Your task to perform on an android device: Open Google Chrome and click the shortcut for Amazon.com Image 0: 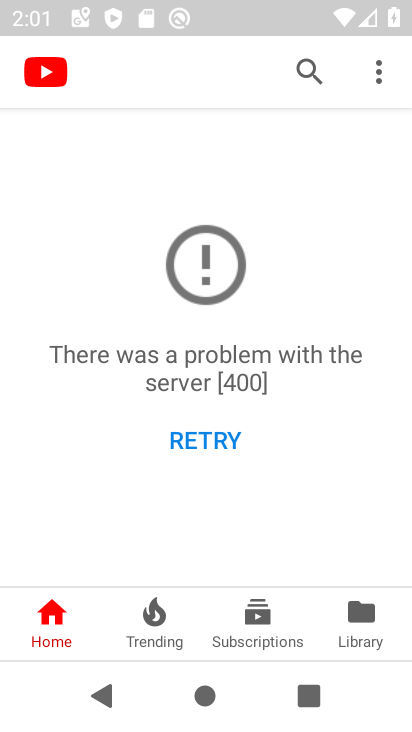
Step 0: press home button
Your task to perform on an android device: Open Google Chrome and click the shortcut for Amazon.com Image 1: 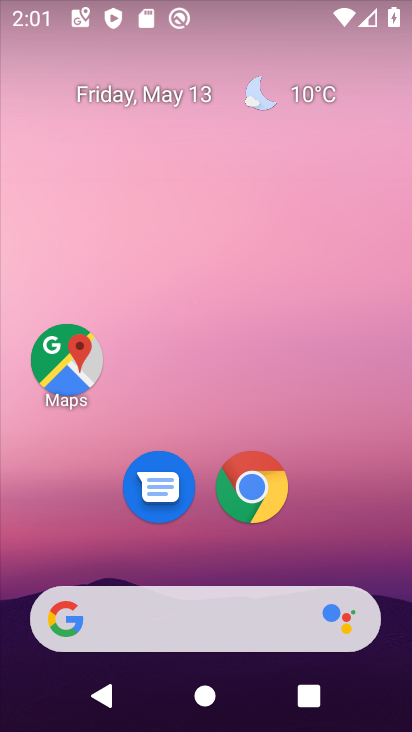
Step 1: click (253, 488)
Your task to perform on an android device: Open Google Chrome and click the shortcut for Amazon.com Image 2: 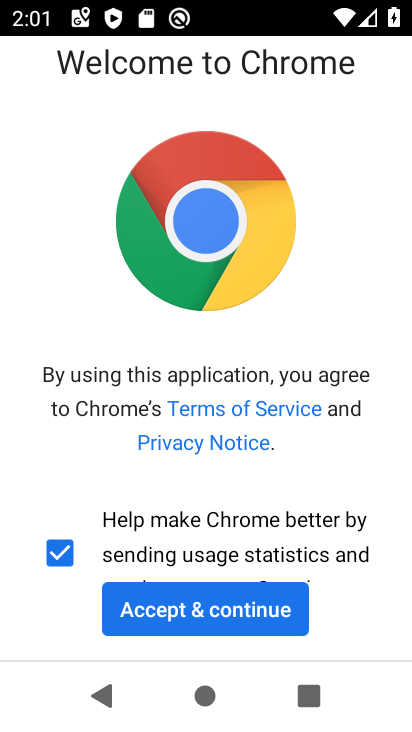
Step 2: click (203, 612)
Your task to perform on an android device: Open Google Chrome and click the shortcut for Amazon.com Image 3: 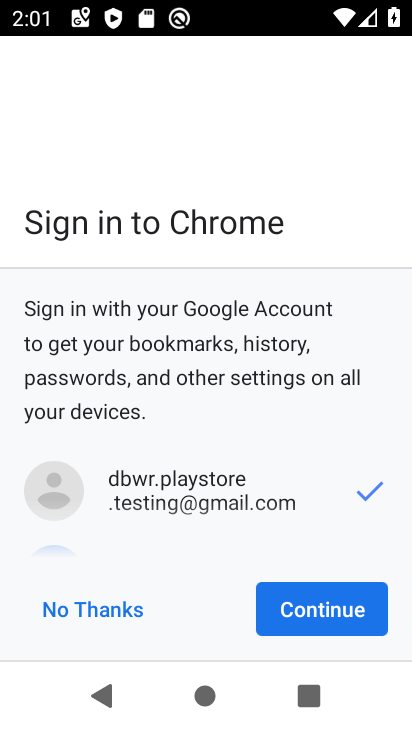
Step 3: click (328, 603)
Your task to perform on an android device: Open Google Chrome and click the shortcut for Amazon.com Image 4: 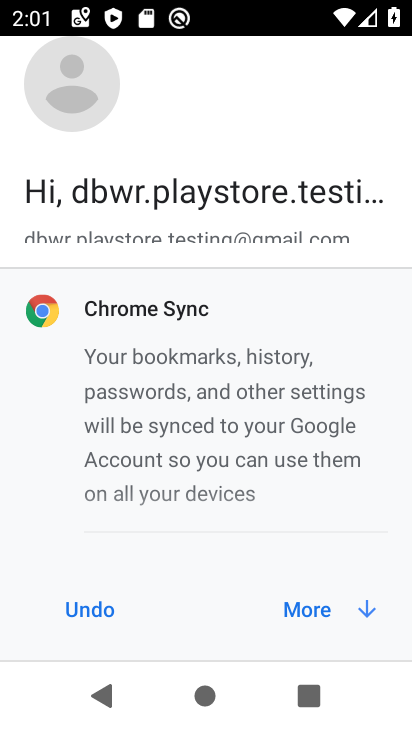
Step 4: click (328, 605)
Your task to perform on an android device: Open Google Chrome and click the shortcut for Amazon.com Image 5: 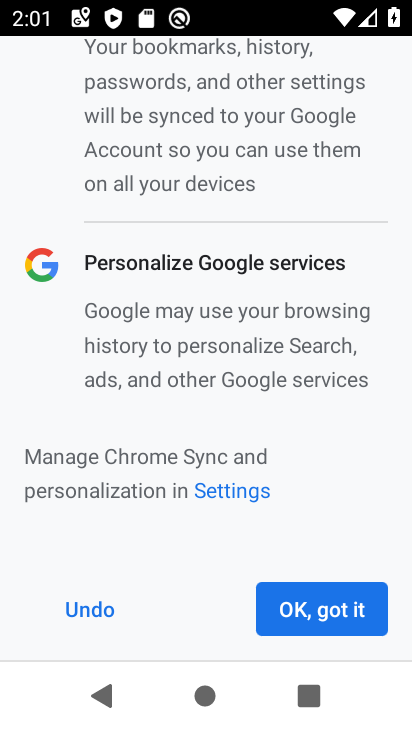
Step 5: click (338, 615)
Your task to perform on an android device: Open Google Chrome and click the shortcut for Amazon.com Image 6: 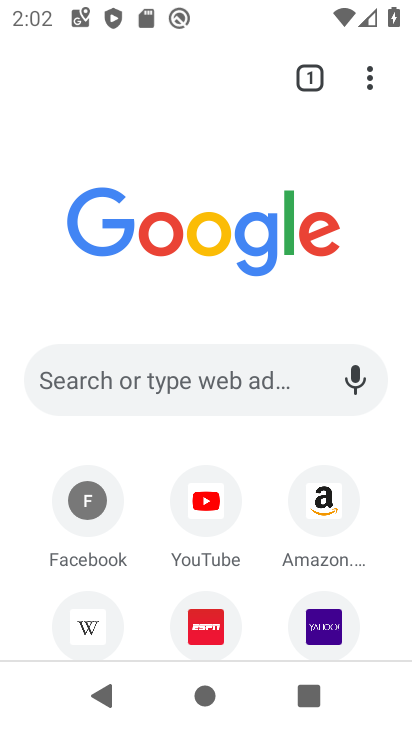
Step 6: click (154, 369)
Your task to perform on an android device: Open Google Chrome and click the shortcut for Amazon.com Image 7: 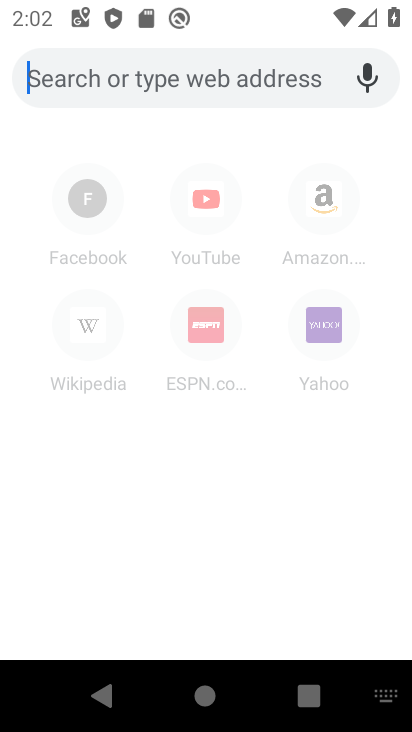
Step 7: type "Amazon.com"
Your task to perform on an android device: Open Google Chrome and click the shortcut for Amazon.com Image 8: 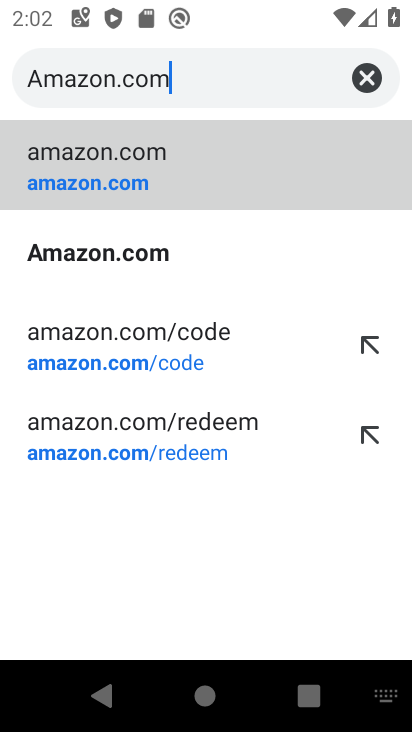
Step 8: click (118, 154)
Your task to perform on an android device: Open Google Chrome and click the shortcut for Amazon.com Image 9: 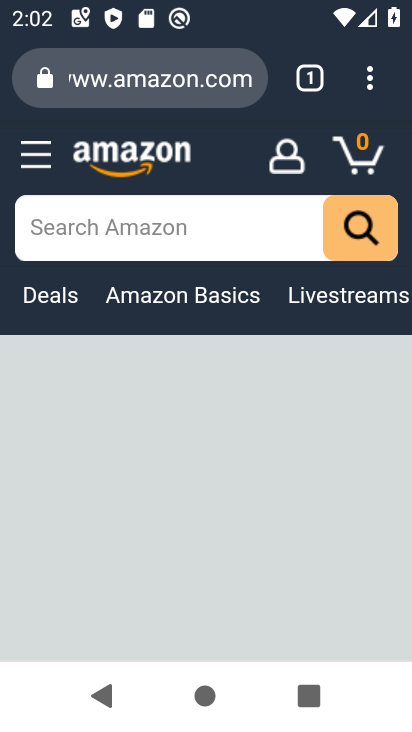
Step 9: click (370, 76)
Your task to perform on an android device: Open Google Chrome and click the shortcut for Amazon.com Image 10: 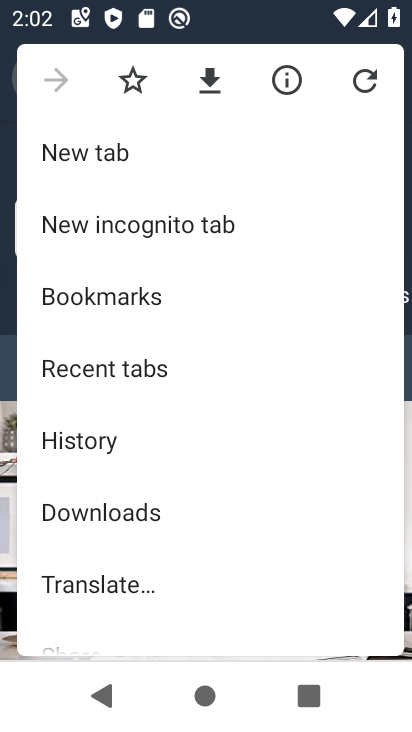
Step 10: click (138, 86)
Your task to perform on an android device: Open Google Chrome and click the shortcut for Amazon.com Image 11: 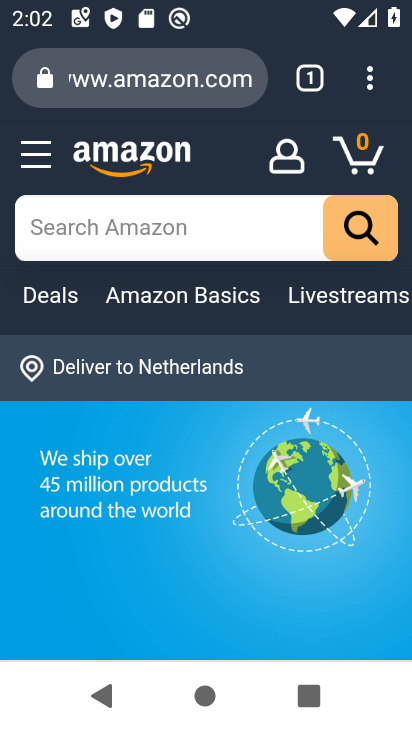
Step 11: task complete